Your task to perform on an android device: open sync settings in chrome Image 0: 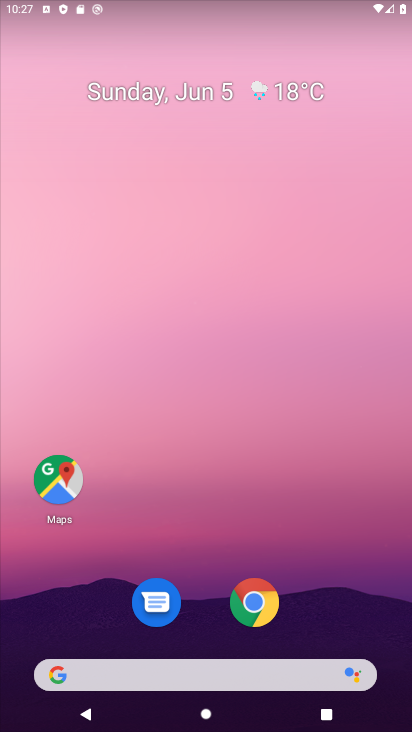
Step 0: click (254, 612)
Your task to perform on an android device: open sync settings in chrome Image 1: 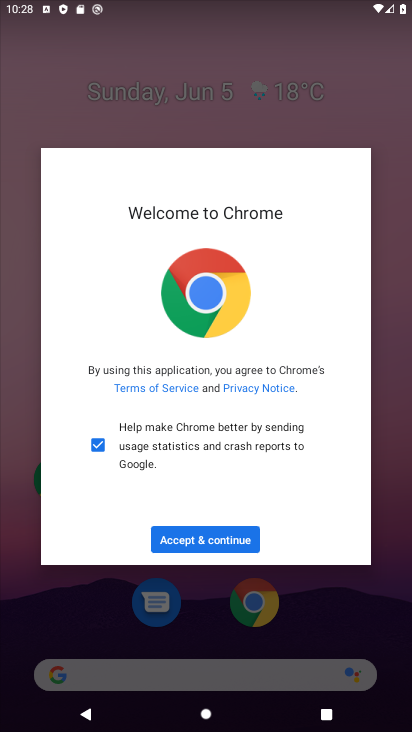
Step 1: click (213, 532)
Your task to perform on an android device: open sync settings in chrome Image 2: 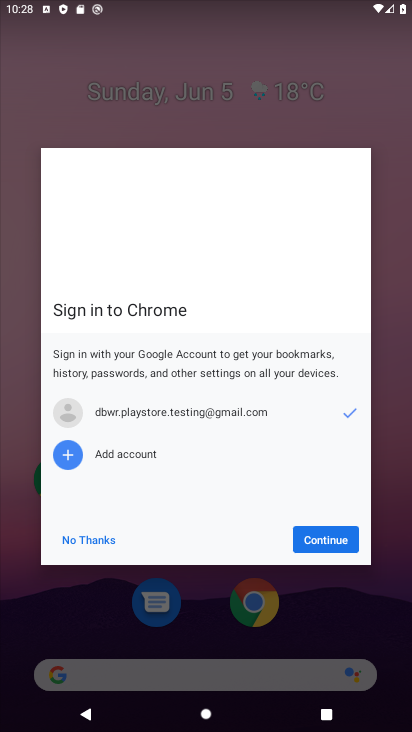
Step 2: click (330, 526)
Your task to perform on an android device: open sync settings in chrome Image 3: 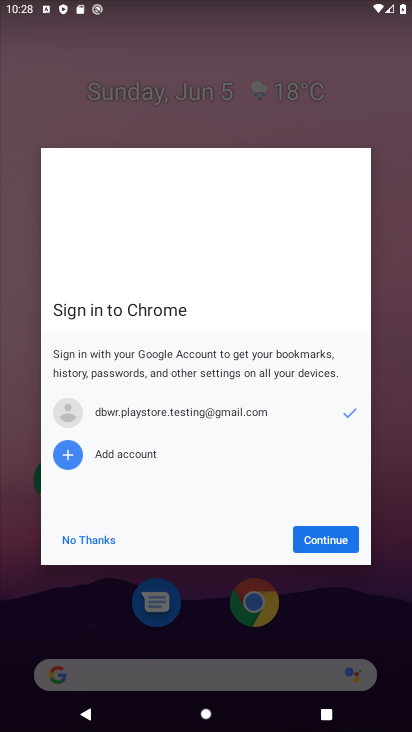
Step 3: click (322, 535)
Your task to perform on an android device: open sync settings in chrome Image 4: 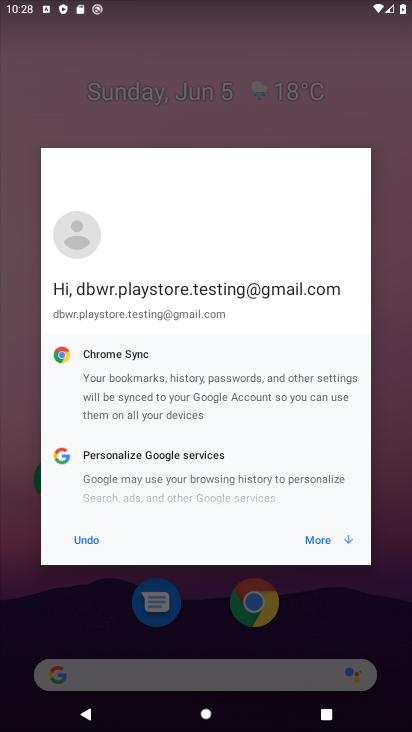
Step 4: click (322, 535)
Your task to perform on an android device: open sync settings in chrome Image 5: 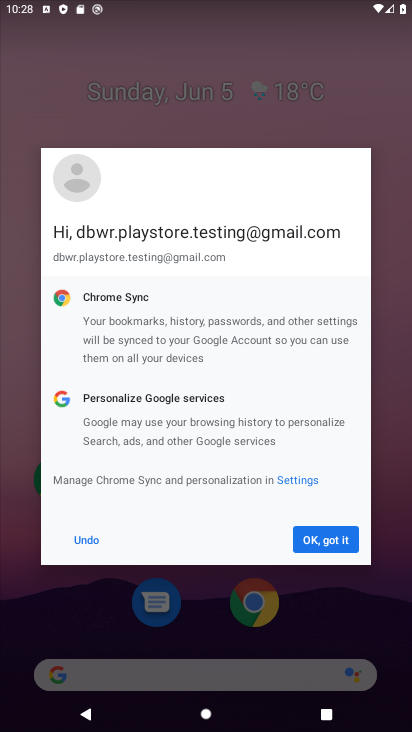
Step 5: click (322, 535)
Your task to perform on an android device: open sync settings in chrome Image 6: 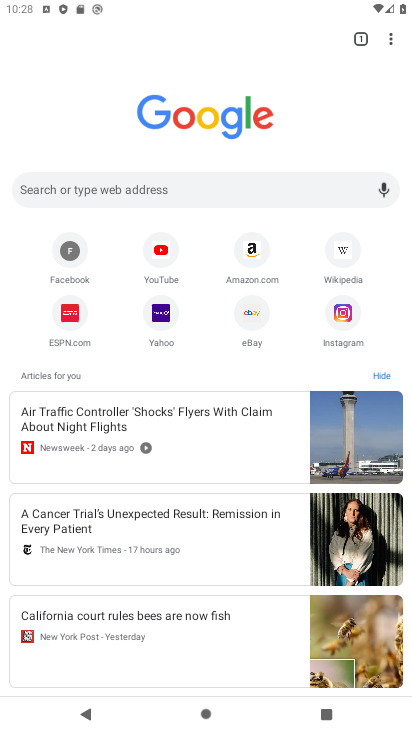
Step 6: task complete